Your task to perform on an android device: toggle show notifications on the lock screen Image 0: 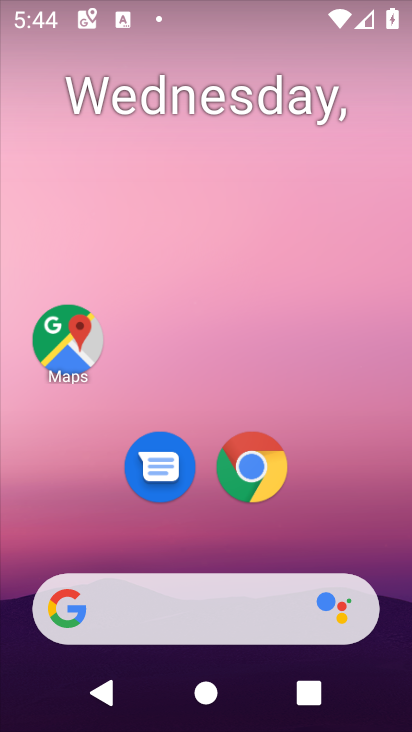
Step 0: drag from (224, 507) to (177, 19)
Your task to perform on an android device: toggle show notifications on the lock screen Image 1: 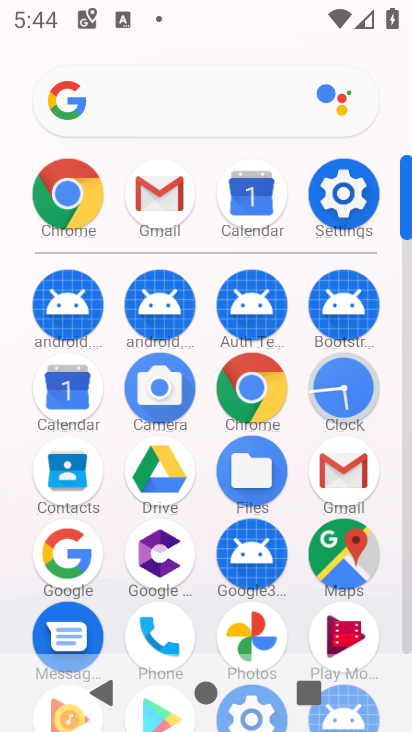
Step 1: click (319, 189)
Your task to perform on an android device: toggle show notifications on the lock screen Image 2: 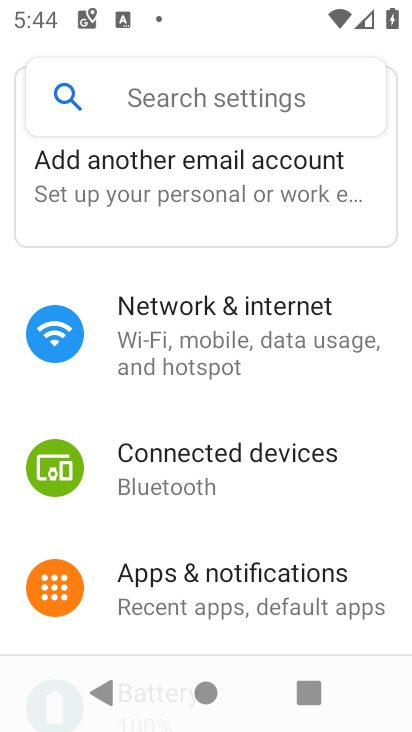
Step 2: click (231, 588)
Your task to perform on an android device: toggle show notifications on the lock screen Image 3: 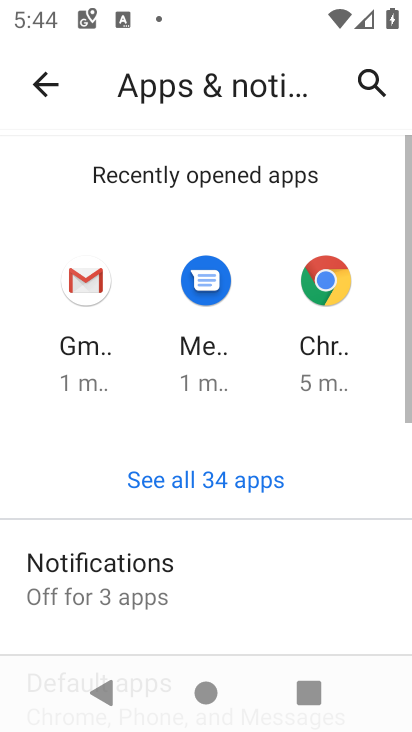
Step 3: drag from (253, 543) to (229, 119)
Your task to perform on an android device: toggle show notifications on the lock screen Image 4: 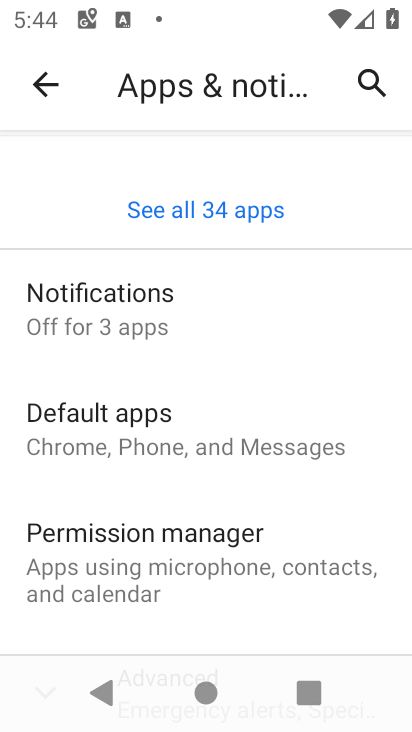
Step 4: click (203, 302)
Your task to perform on an android device: toggle show notifications on the lock screen Image 5: 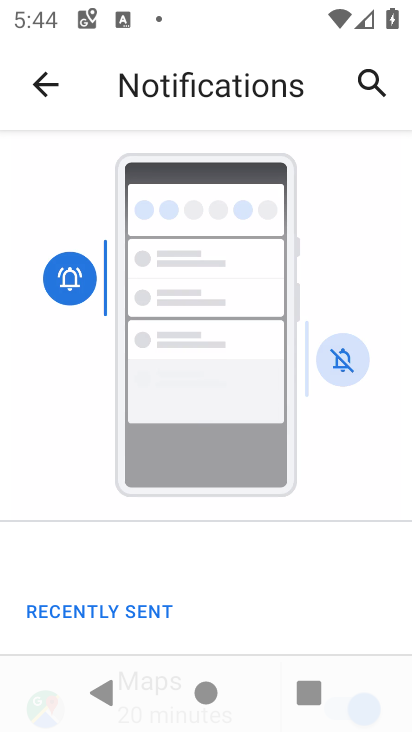
Step 5: drag from (294, 494) to (281, 28)
Your task to perform on an android device: toggle show notifications on the lock screen Image 6: 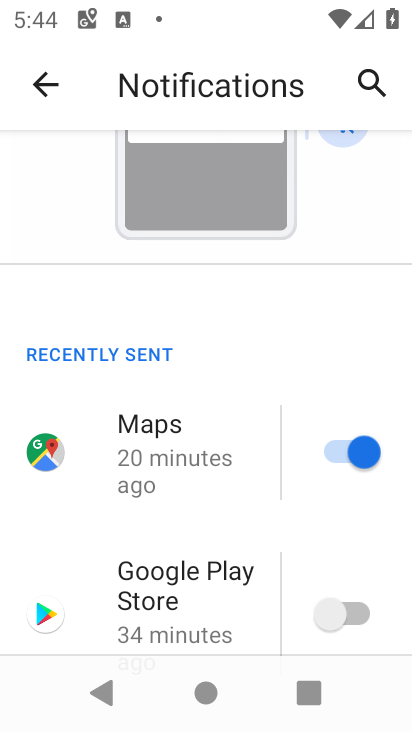
Step 6: drag from (188, 570) to (239, 139)
Your task to perform on an android device: toggle show notifications on the lock screen Image 7: 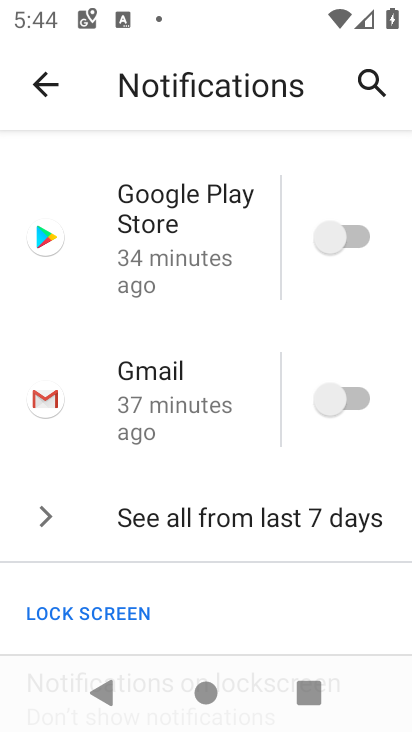
Step 7: drag from (194, 440) to (183, 156)
Your task to perform on an android device: toggle show notifications on the lock screen Image 8: 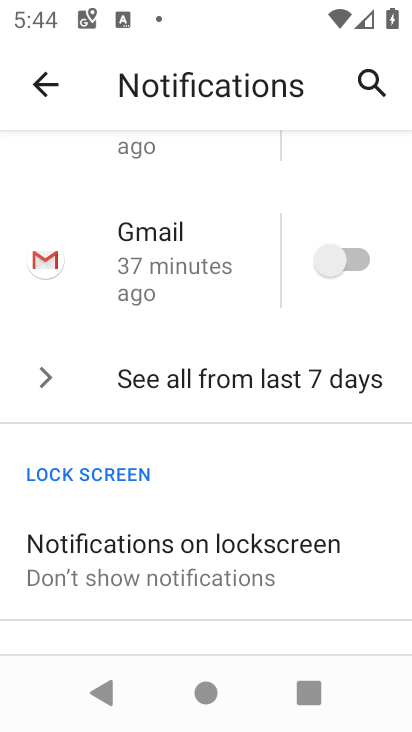
Step 8: click (174, 542)
Your task to perform on an android device: toggle show notifications on the lock screen Image 9: 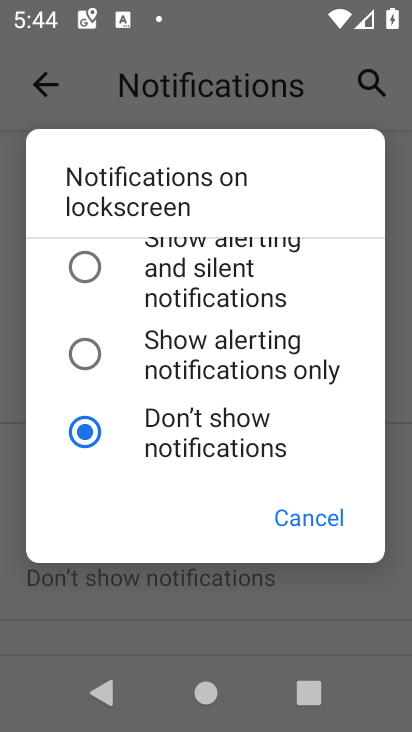
Step 9: click (85, 262)
Your task to perform on an android device: toggle show notifications on the lock screen Image 10: 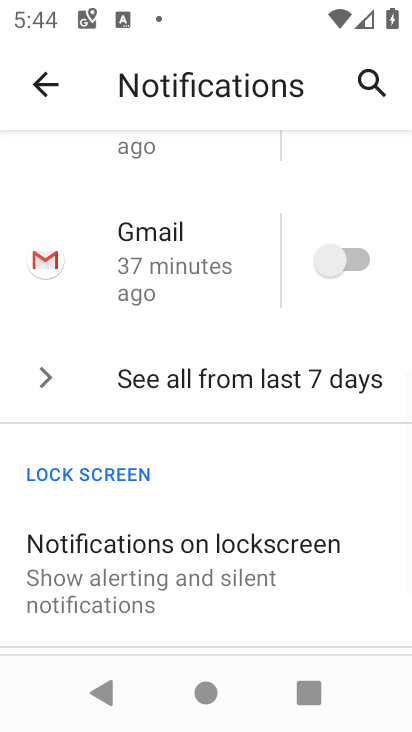
Step 10: task complete